Your task to perform on an android device: empty trash in google photos Image 0: 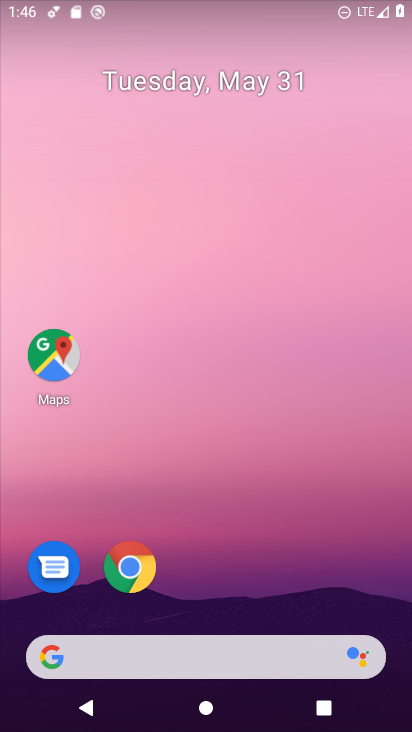
Step 0: drag from (234, 590) to (234, 197)
Your task to perform on an android device: empty trash in google photos Image 1: 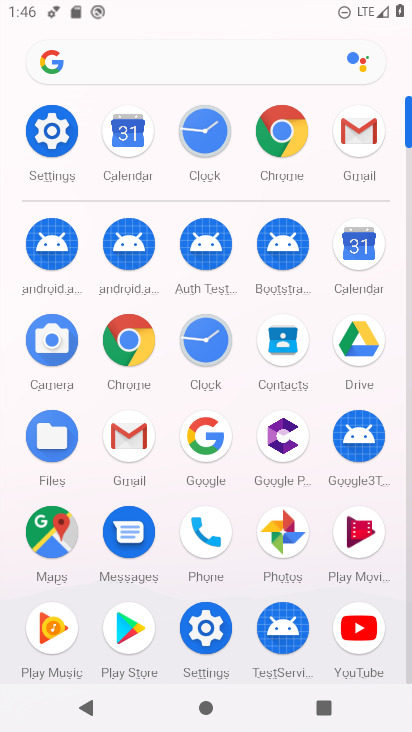
Step 1: click (280, 525)
Your task to perform on an android device: empty trash in google photos Image 2: 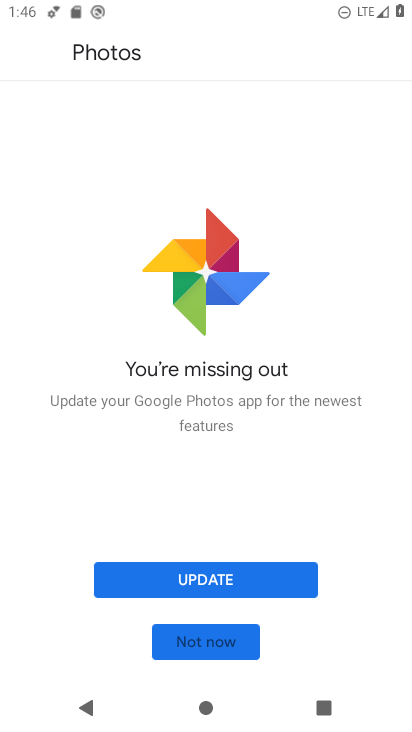
Step 2: click (214, 652)
Your task to perform on an android device: empty trash in google photos Image 3: 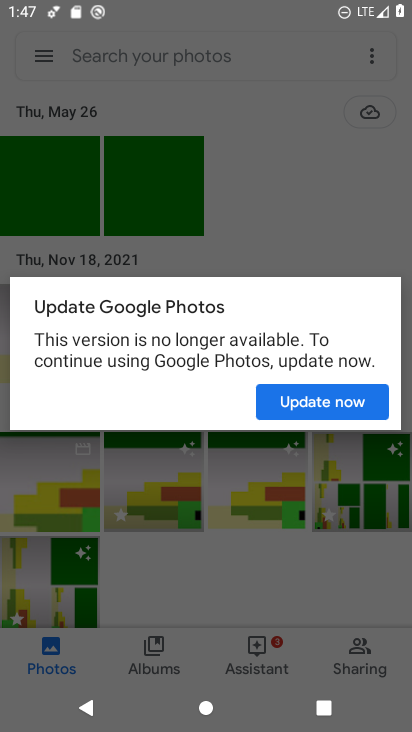
Step 3: click (270, 391)
Your task to perform on an android device: empty trash in google photos Image 4: 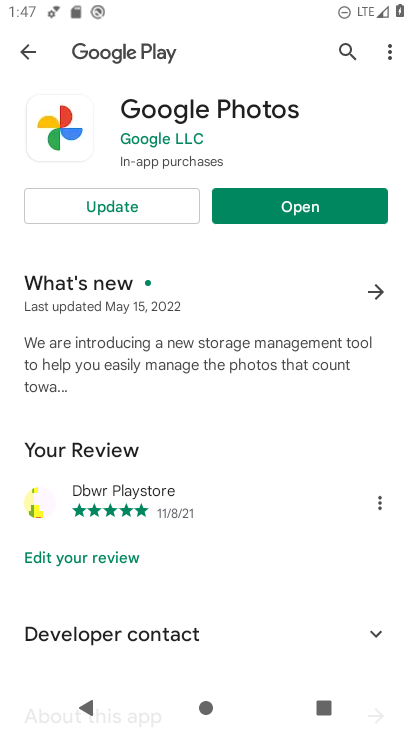
Step 4: click (248, 203)
Your task to perform on an android device: empty trash in google photos Image 5: 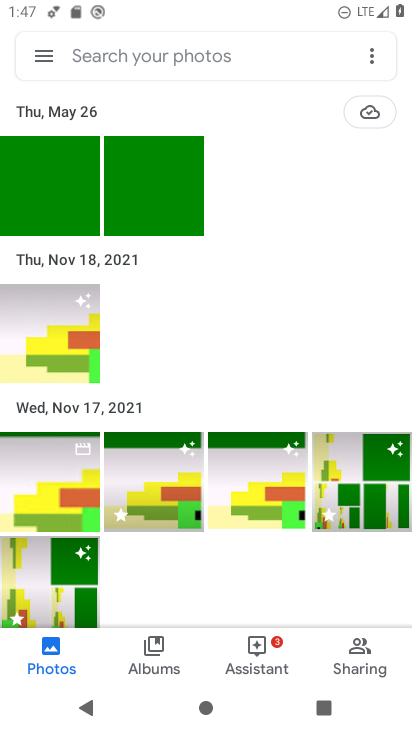
Step 5: click (56, 56)
Your task to perform on an android device: empty trash in google photos Image 6: 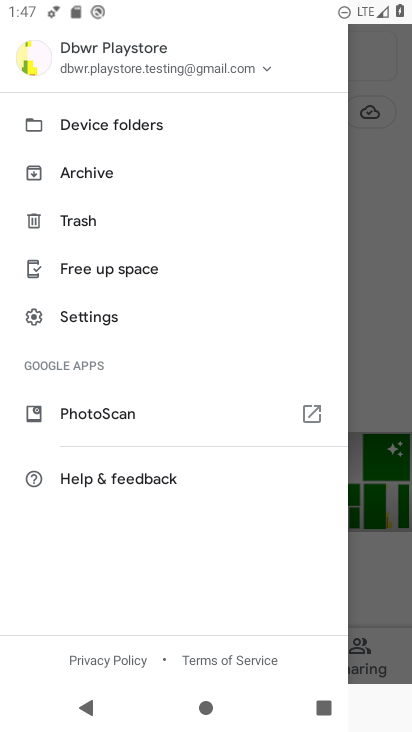
Step 6: click (97, 225)
Your task to perform on an android device: empty trash in google photos Image 7: 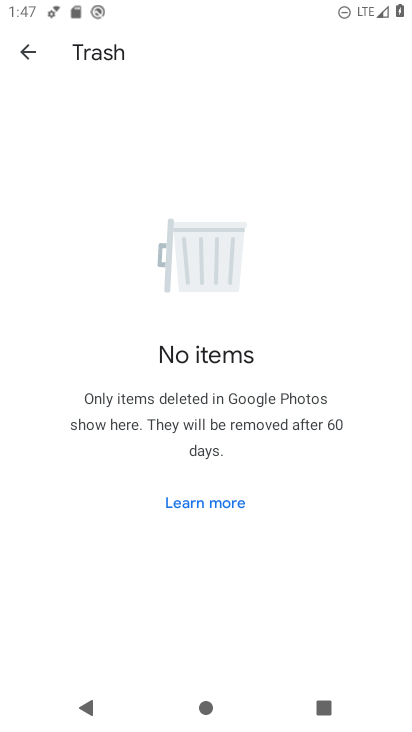
Step 7: task complete